Your task to perform on an android device: toggle priority inbox in the gmail app Image 0: 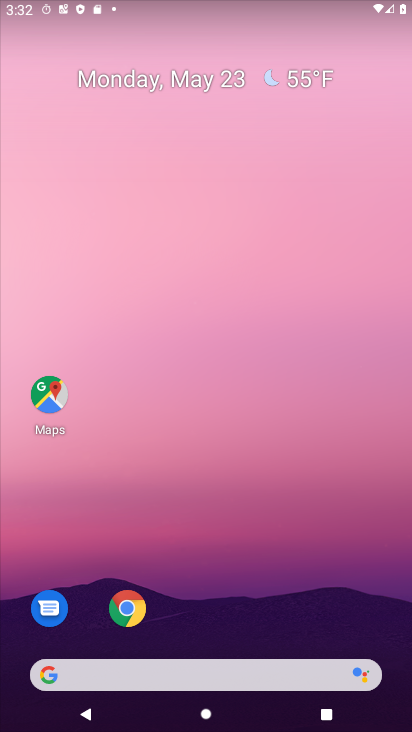
Step 0: drag from (303, 567) to (197, 4)
Your task to perform on an android device: toggle priority inbox in the gmail app Image 1: 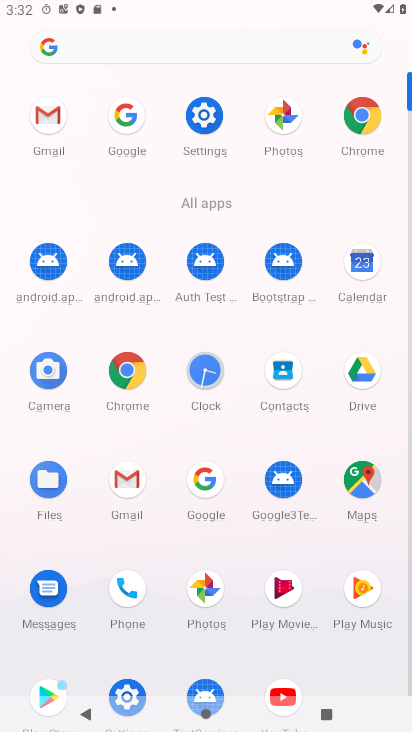
Step 1: click (129, 488)
Your task to perform on an android device: toggle priority inbox in the gmail app Image 2: 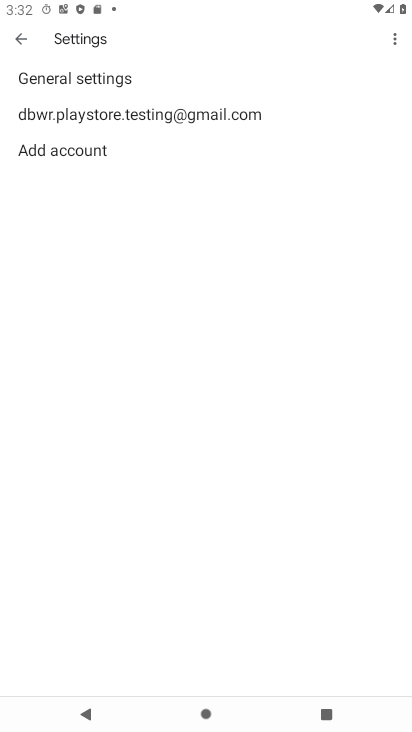
Step 2: click (57, 110)
Your task to perform on an android device: toggle priority inbox in the gmail app Image 3: 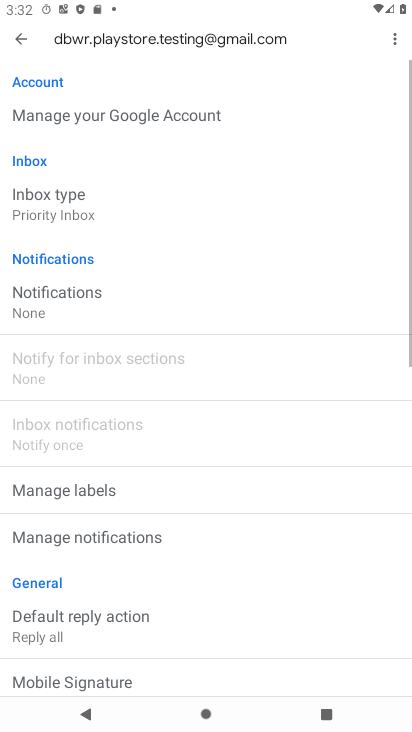
Step 3: click (79, 206)
Your task to perform on an android device: toggle priority inbox in the gmail app Image 4: 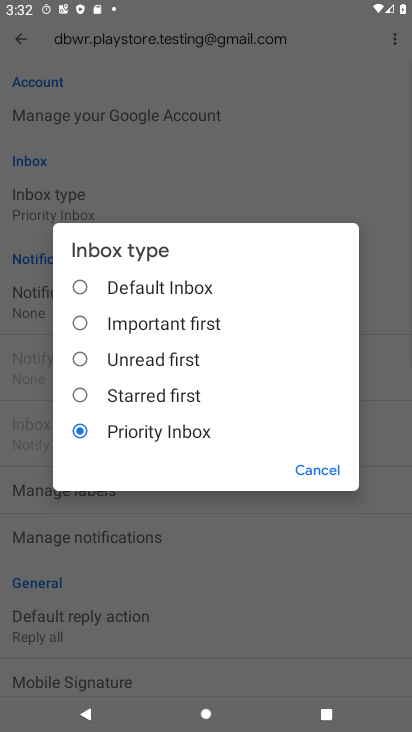
Step 4: click (144, 291)
Your task to perform on an android device: toggle priority inbox in the gmail app Image 5: 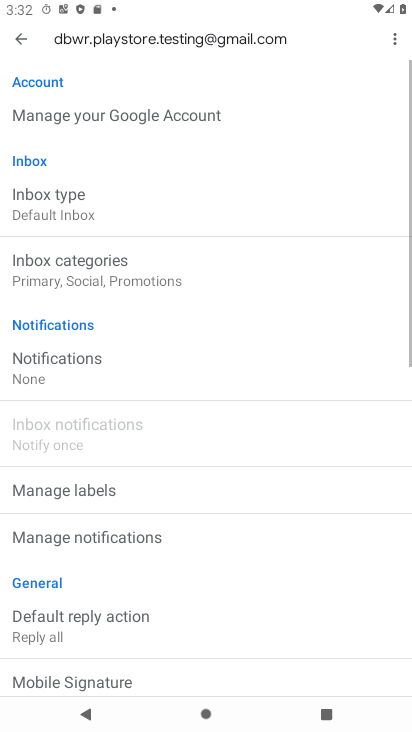
Step 5: task complete